Your task to perform on an android device: Open the calendar and show me this week's events? Image 0: 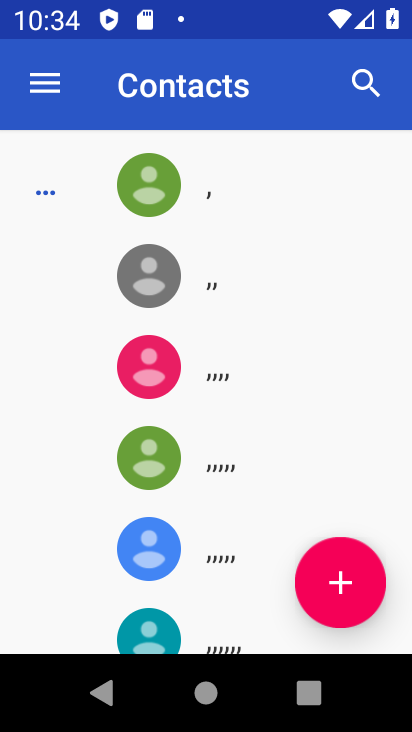
Step 0: press home button
Your task to perform on an android device: Open the calendar and show me this week's events? Image 1: 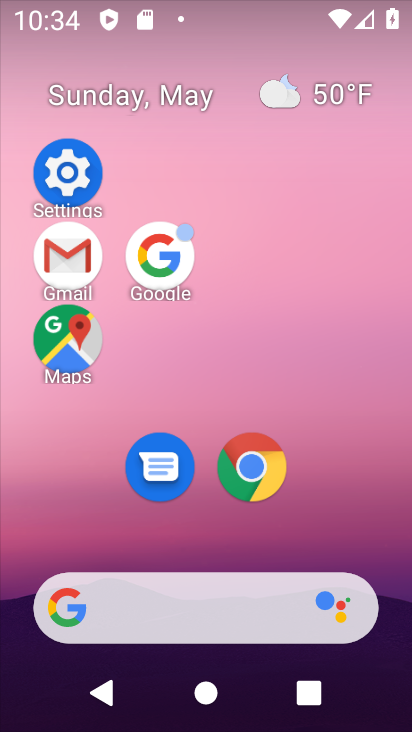
Step 1: drag from (191, 395) to (213, 70)
Your task to perform on an android device: Open the calendar and show me this week's events? Image 2: 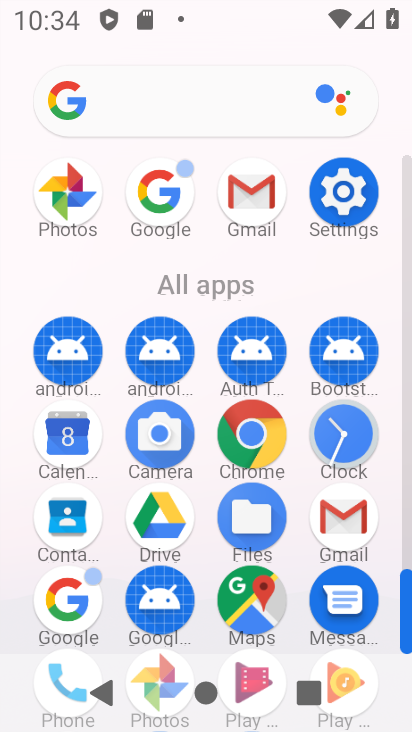
Step 2: drag from (59, 449) to (169, 195)
Your task to perform on an android device: Open the calendar and show me this week's events? Image 3: 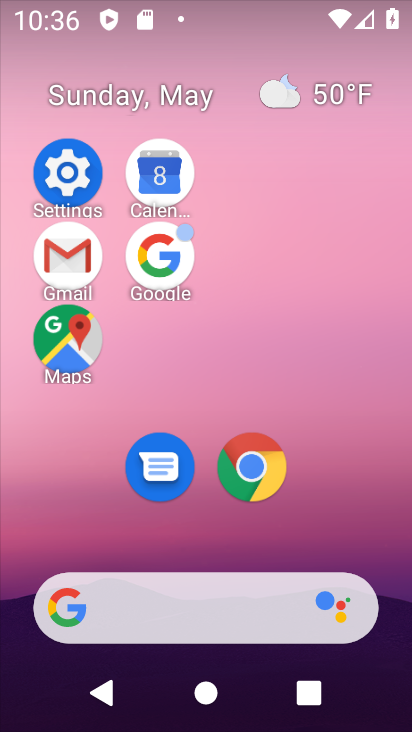
Step 3: click (171, 173)
Your task to perform on an android device: Open the calendar and show me this week's events? Image 4: 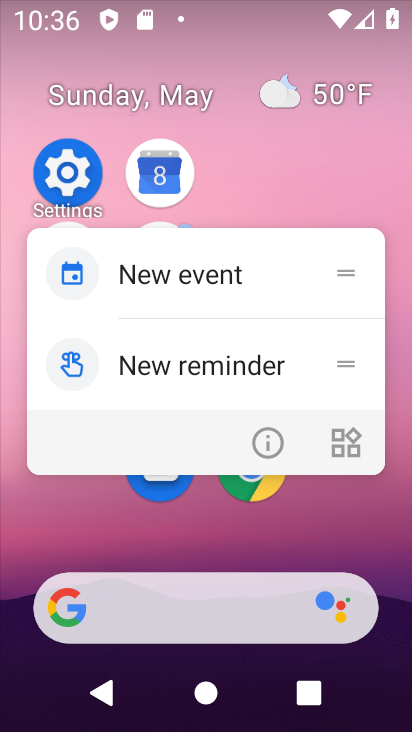
Step 4: click (160, 172)
Your task to perform on an android device: Open the calendar and show me this week's events? Image 5: 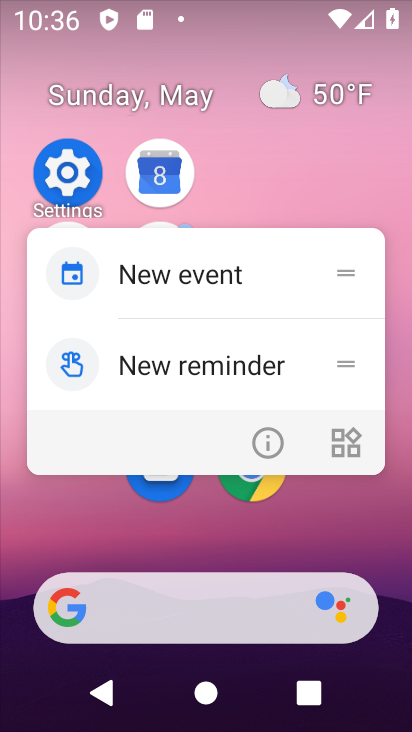
Step 5: click (160, 172)
Your task to perform on an android device: Open the calendar and show me this week's events? Image 6: 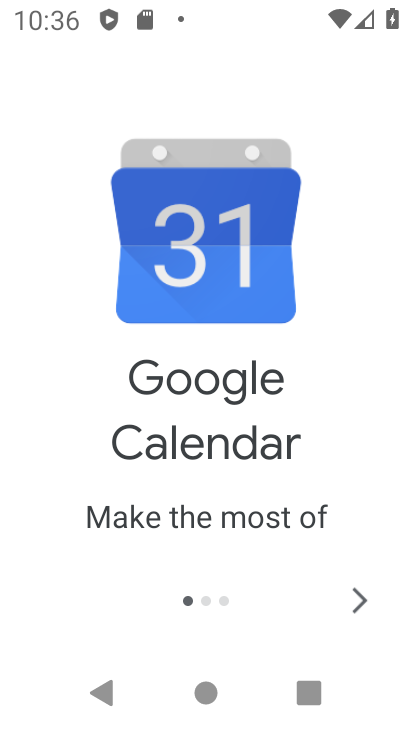
Step 6: click (358, 587)
Your task to perform on an android device: Open the calendar and show me this week's events? Image 7: 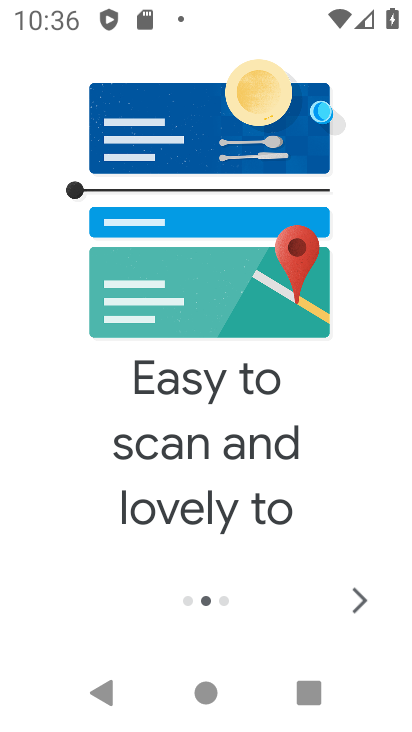
Step 7: click (358, 587)
Your task to perform on an android device: Open the calendar and show me this week's events? Image 8: 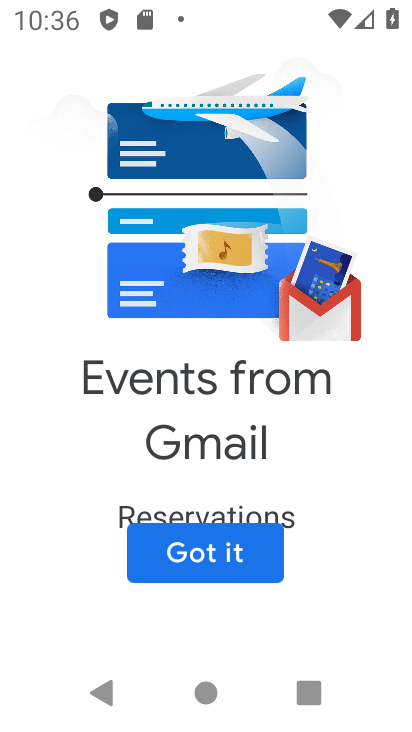
Step 8: click (358, 587)
Your task to perform on an android device: Open the calendar and show me this week's events? Image 9: 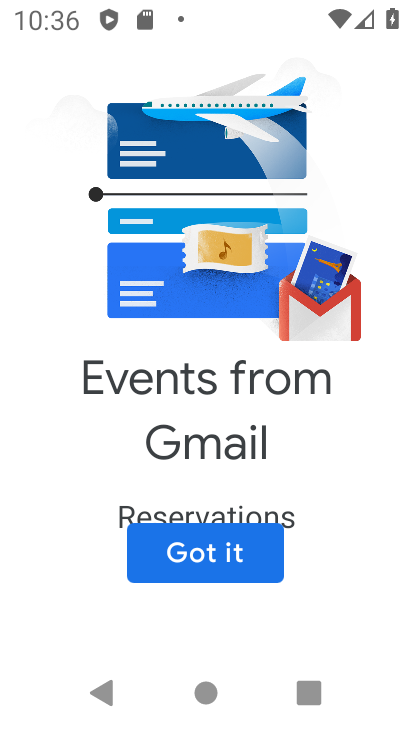
Step 9: click (118, 550)
Your task to perform on an android device: Open the calendar and show me this week's events? Image 10: 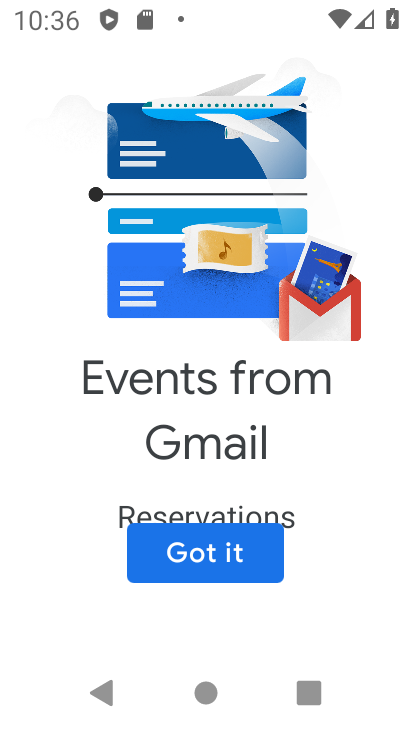
Step 10: click (141, 553)
Your task to perform on an android device: Open the calendar and show me this week's events? Image 11: 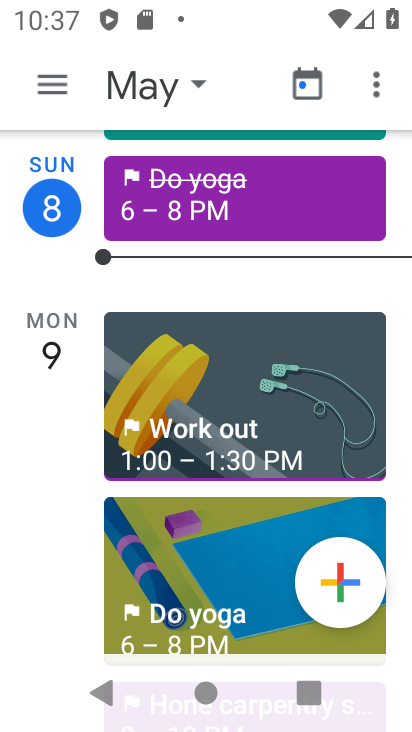
Step 11: click (53, 93)
Your task to perform on an android device: Open the calendar and show me this week's events? Image 12: 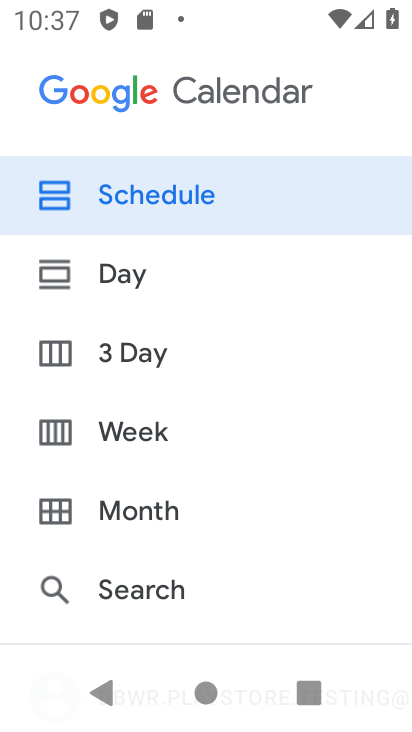
Step 12: click (142, 437)
Your task to perform on an android device: Open the calendar and show me this week's events? Image 13: 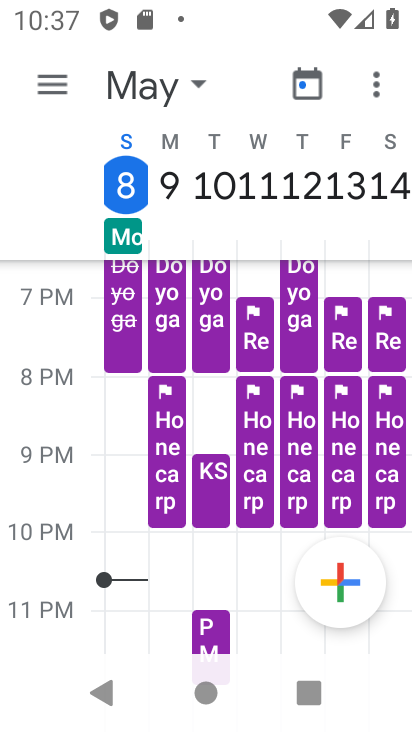
Step 13: task complete